Your task to perform on an android device: install app "Booking.com: Hotels and more" Image 0: 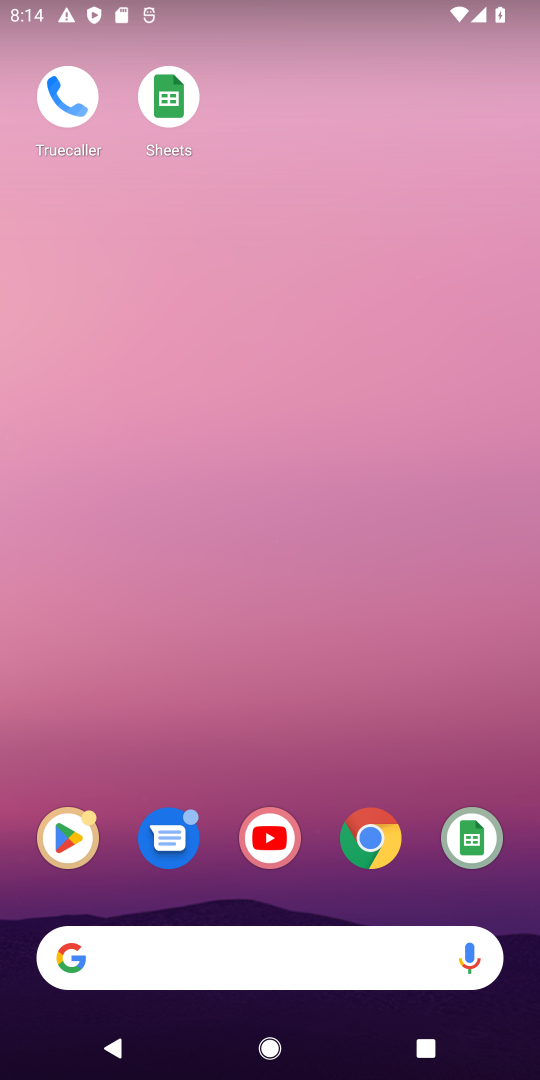
Step 0: drag from (257, 967) to (249, 217)
Your task to perform on an android device: install app "Booking.com: Hotels and more" Image 1: 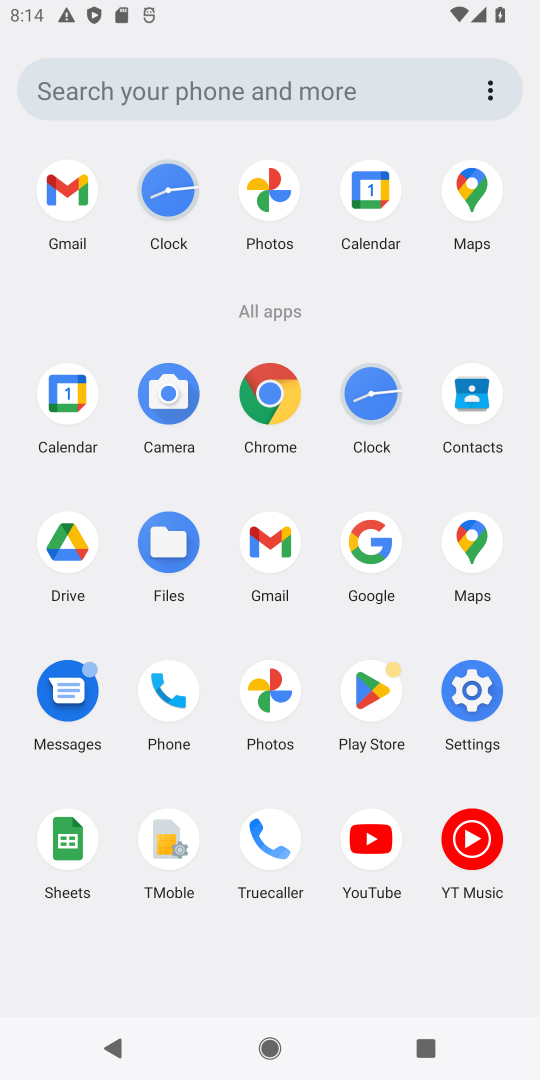
Step 1: click (375, 679)
Your task to perform on an android device: install app "Booking.com: Hotels and more" Image 2: 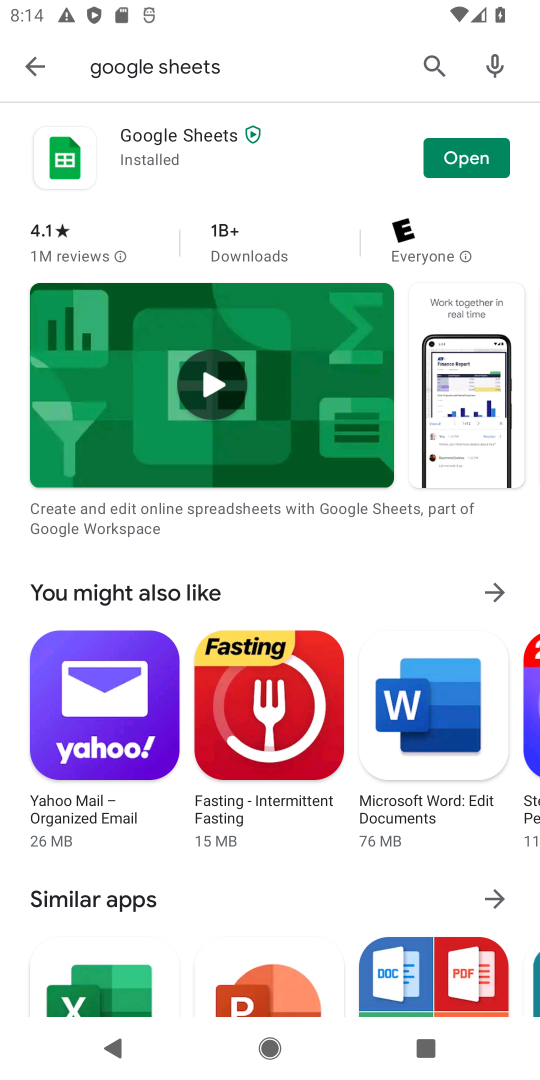
Step 2: click (428, 59)
Your task to perform on an android device: install app "Booking.com: Hotels and more" Image 3: 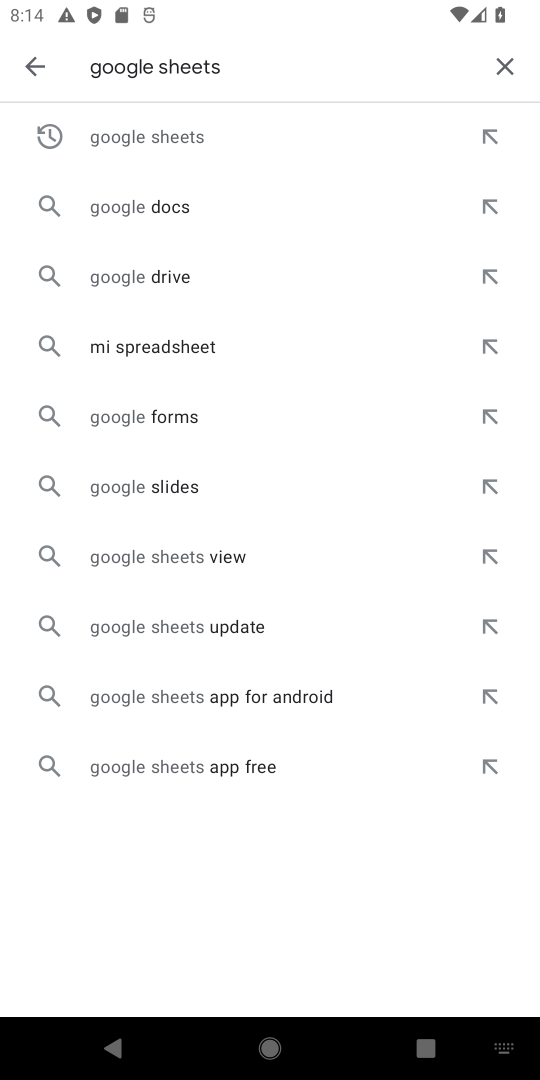
Step 3: click (498, 57)
Your task to perform on an android device: install app "Booking.com: Hotels and more" Image 4: 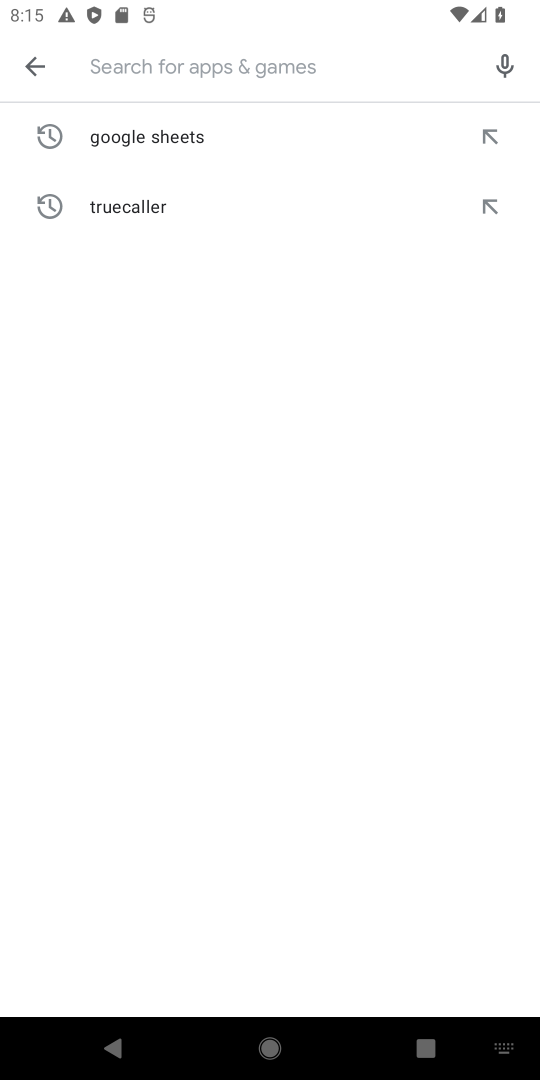
Step 4: type "Booking.com: hotels and more"
Your task to perform on an android device: install app "Booking.com: Hotels and more" Image 5: 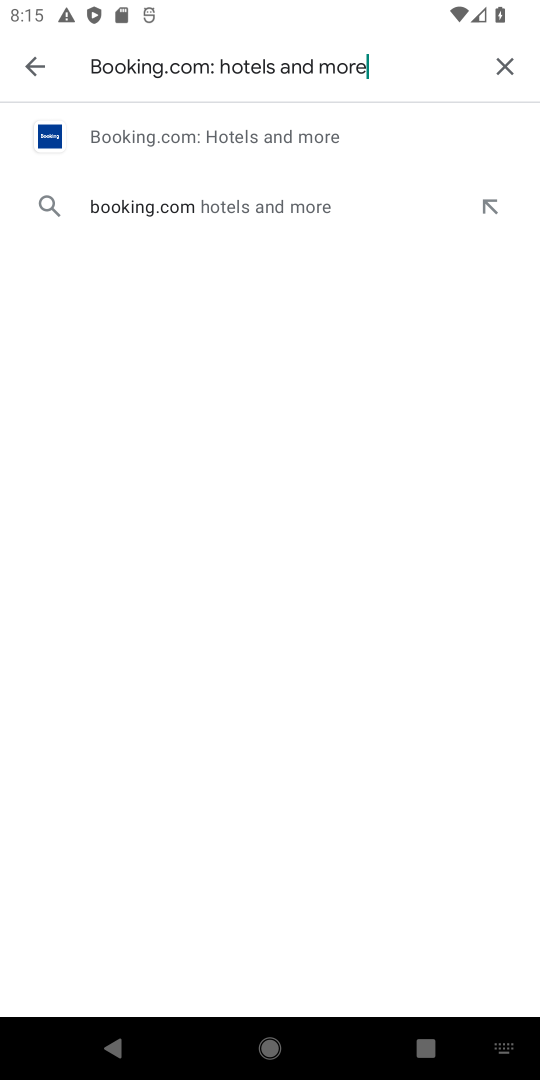
Step 5: click (161, 151)
Your task to perform on an android device: install app "Booking.com: Hotels and more" Image 6: 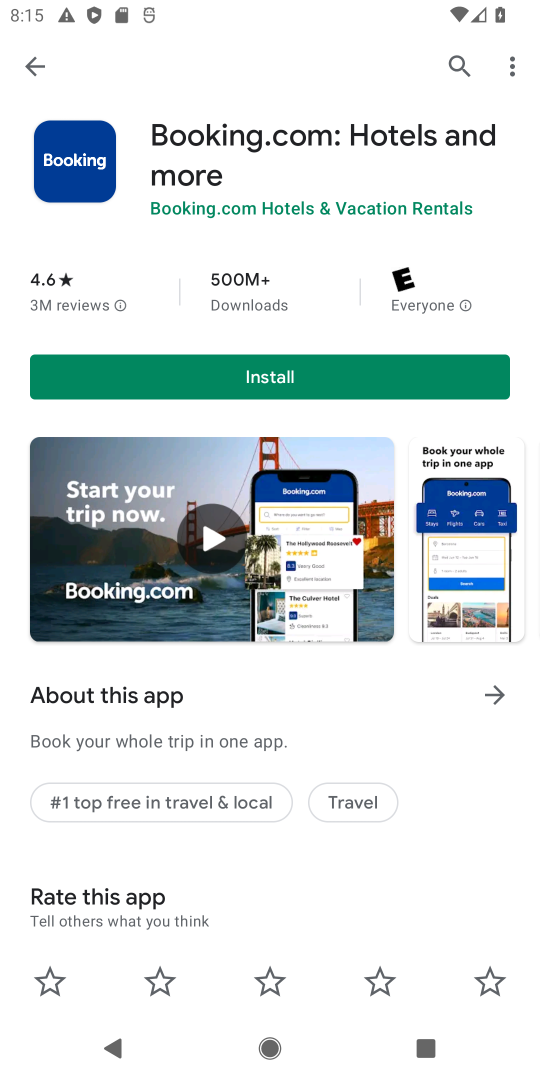
Step 6: click (314, 386)
Your task to perform on an android device: install app "Booking.com: Hotels and more" Image 7: 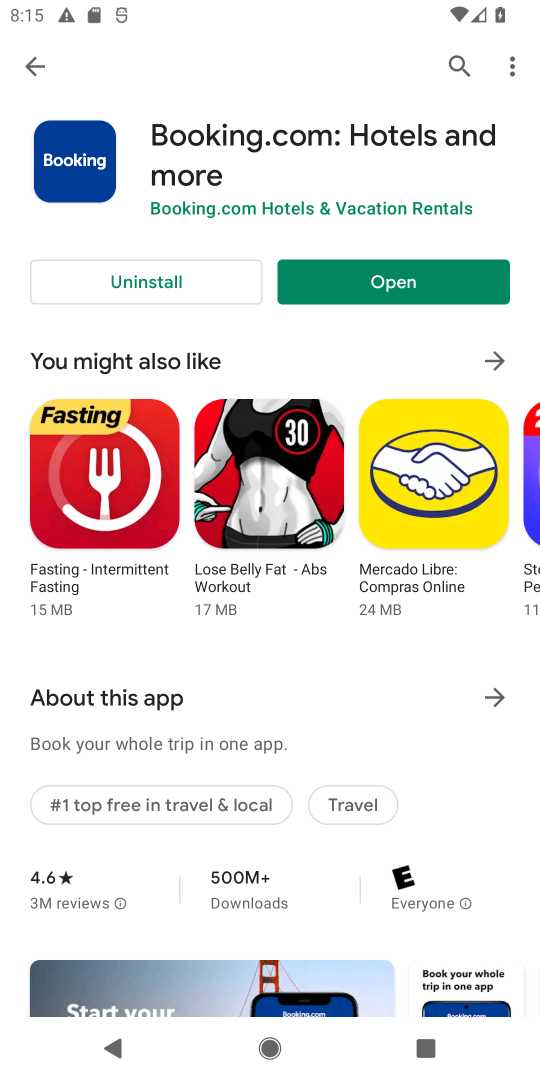
Step 7: task complete